Your task to perform on an android device: What's on my calendar tomorrow? Image 0: 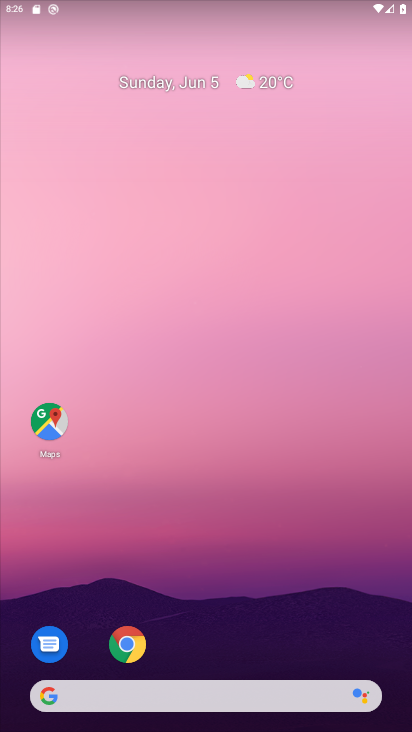
Step 0: drag from (256, 495) to (260, 138)
Your task to perform on an android device: What's on my calendar tomorrow? Image 1: 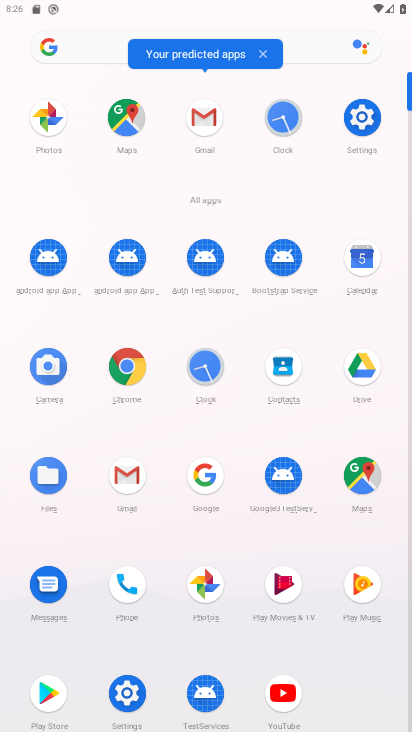
Step 1: click (367, 266)
Your task to perform on an android device: What's on my calendar tomorrow? Image 2: 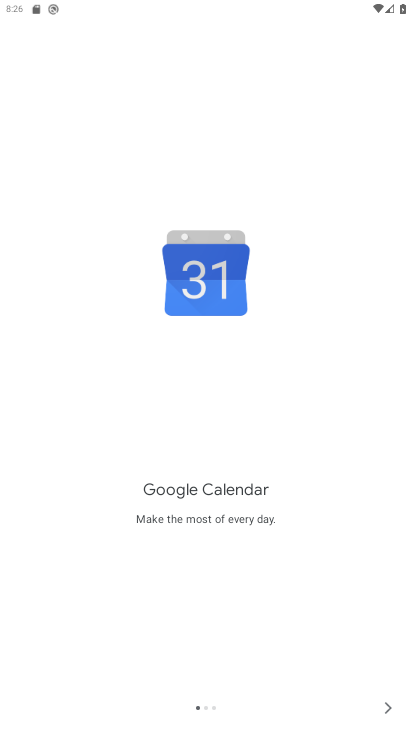
Step 2: click (386, 707)
Your task to perform on an android device: What's on my calendar tomorrow? Image 3: 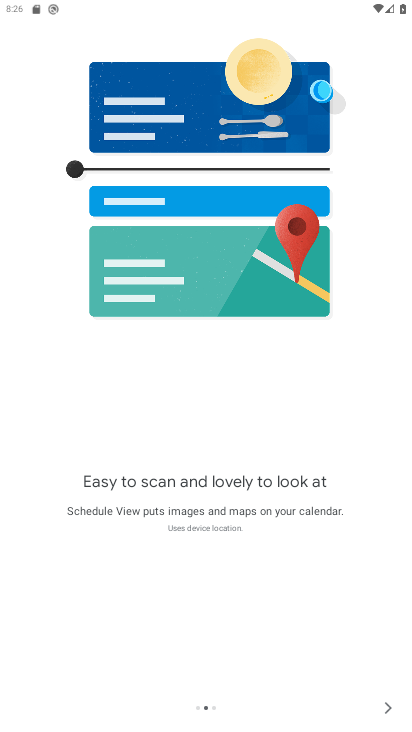
Step 3: click (386, 707)
Your task to perform on an android device: What's on my calendar tomorrow? Image 4: 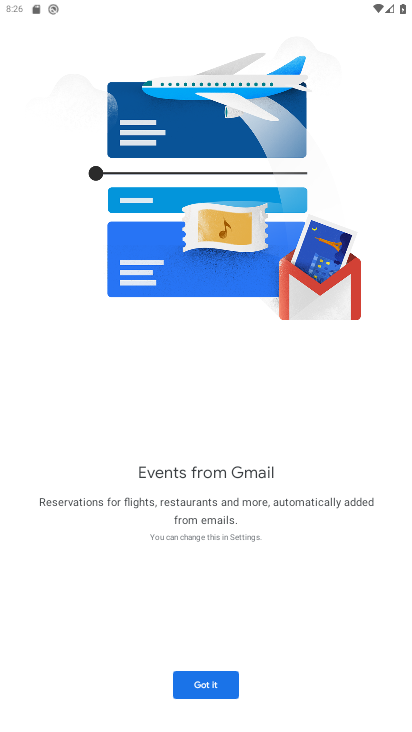
Step 4: click (383, 705)
Your task to perform on an android device: What's on my calendar tomorrow? Image 5: 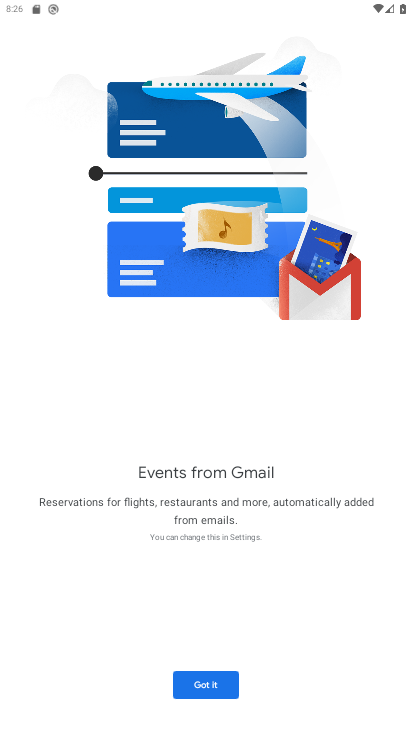
Step 5: click (219, 686)
Your task to perform on an android device: What's on my calendar tomorrow? Image 6: 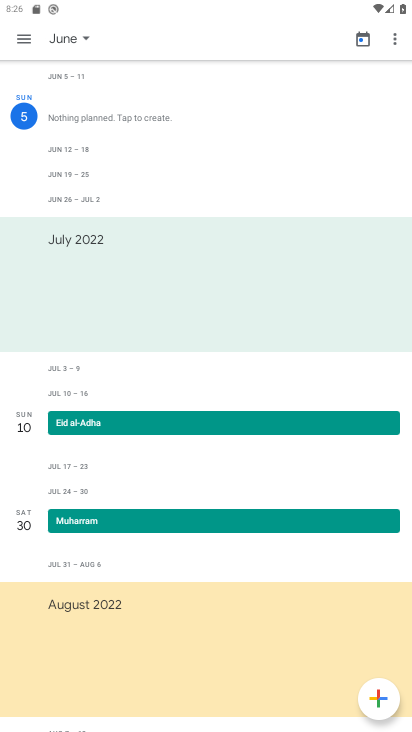
Step 6: click (73, 36)
Your task to perform on an android device: What's on my calendar tomorrow? Image 7: 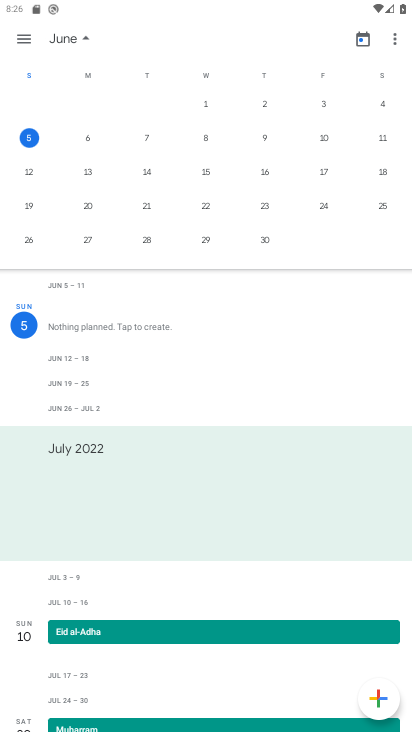
Step 7: click (87, 143)
Your task to perform on an android device: What's on my calendar tomorrow? Image 8: 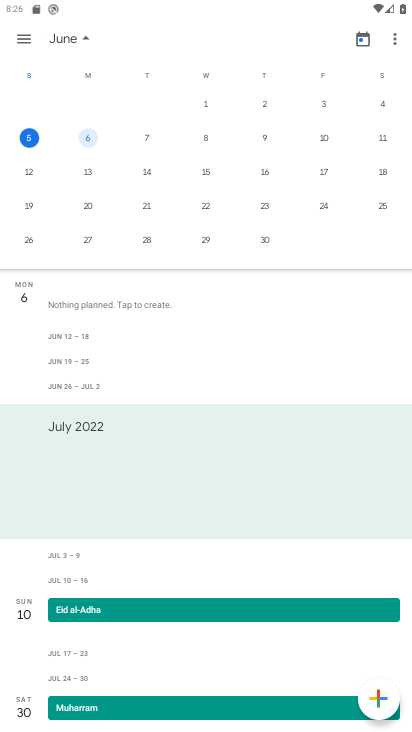
Step 8: click (23, 38)
Your task to perform on an android device: What's on my calendar tomorrow? Image 9: 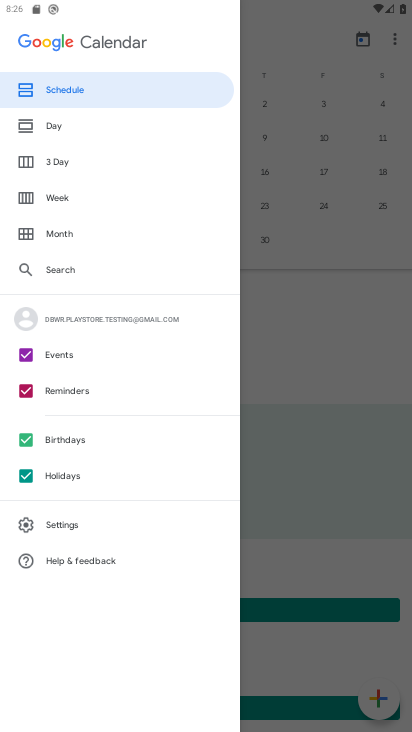
Step 9: click (333, 295)
Your task to perform on an android device: What's on my calendar tomorrow? Image 10: 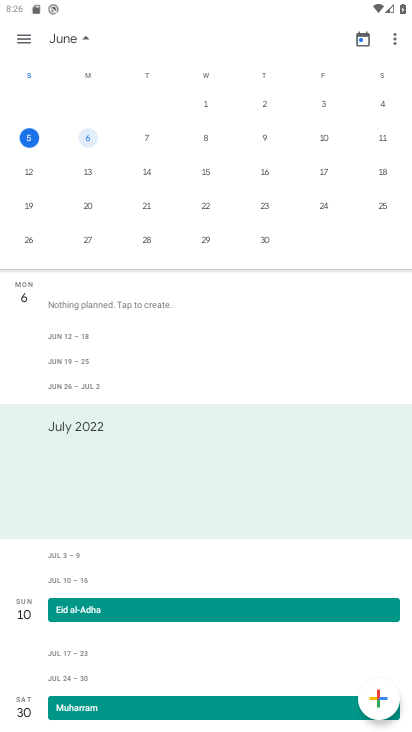
Step 10: task complete